Your task to perform on an android device: Show me recent news Image 0: 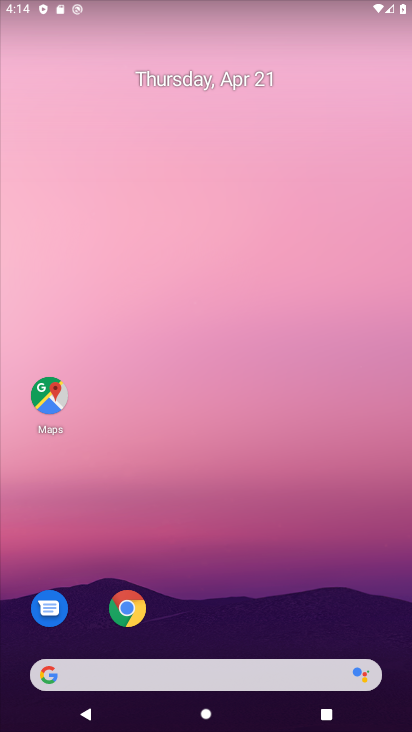
Step 0: drag from (291, 600) to (339, 153)
Your task to perform on an android device: Show me recent news Image 1: 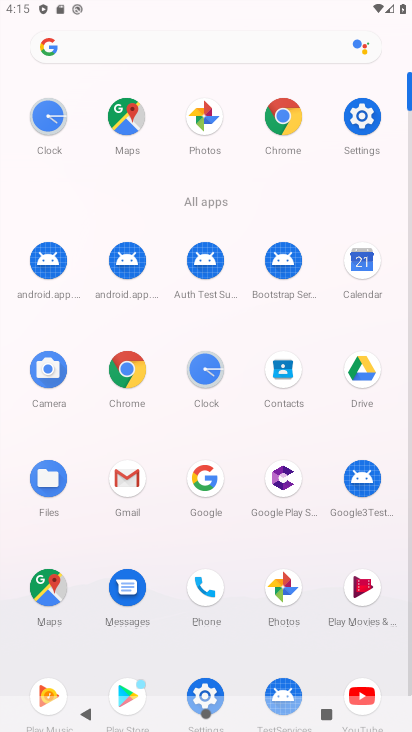
Step 1: drag from (308, 644) to (337, 386)
Your task to perform on an android device: Show me recent news Image 2: 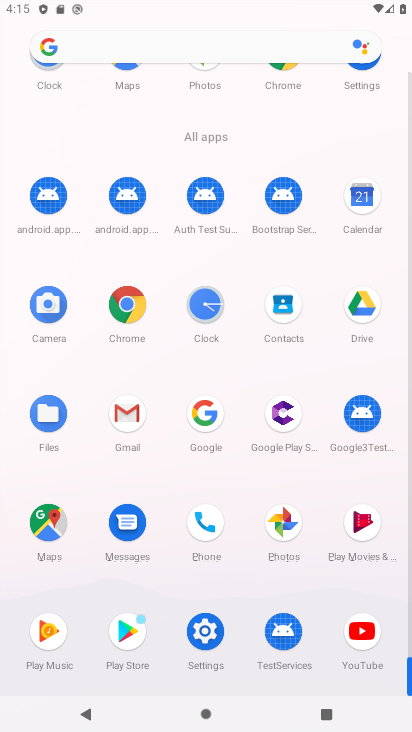
Step 2: click (206, 417)
Your task to perform on an android device: Show me recent news Image 3: 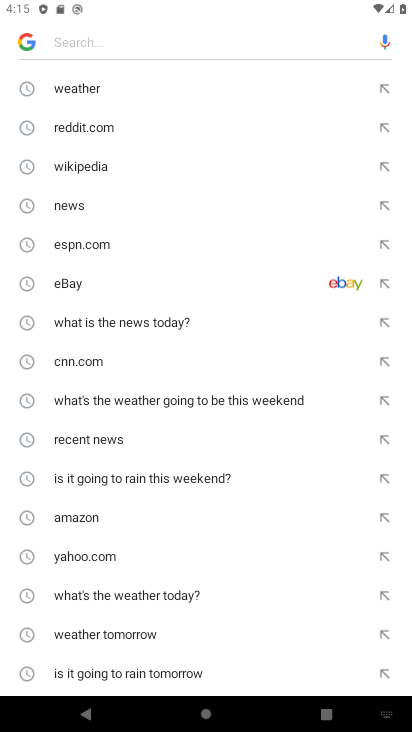
Step 3: press back button
Your task to perform on an android device: Show me recent news Image 4: 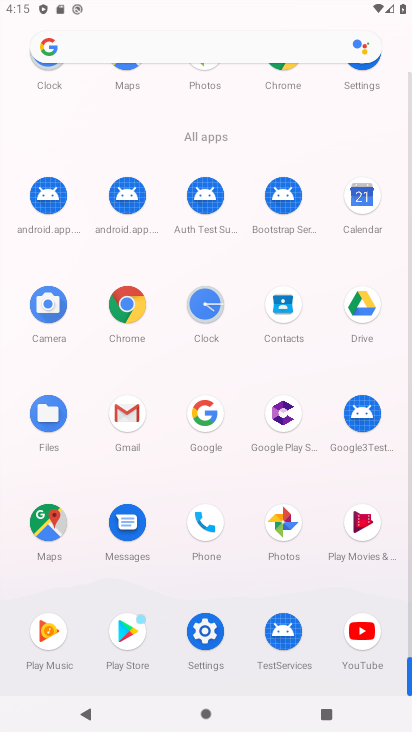
Step 4: click (213, 426)
Your task to perform on an android device: Show me recent news Image 5: 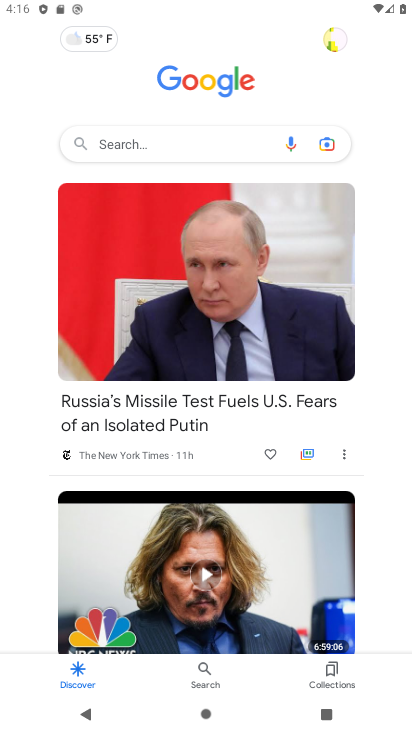
Step 5: task complete